Your task to perform on an android device: allow cookies in the chrome app Image 0: 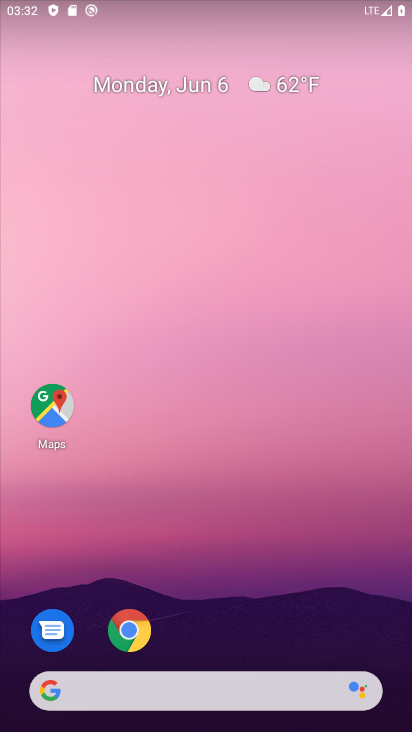
Step 0: press home button
Your task to perform on an android device: allow cookies in the chrome app Image 1: 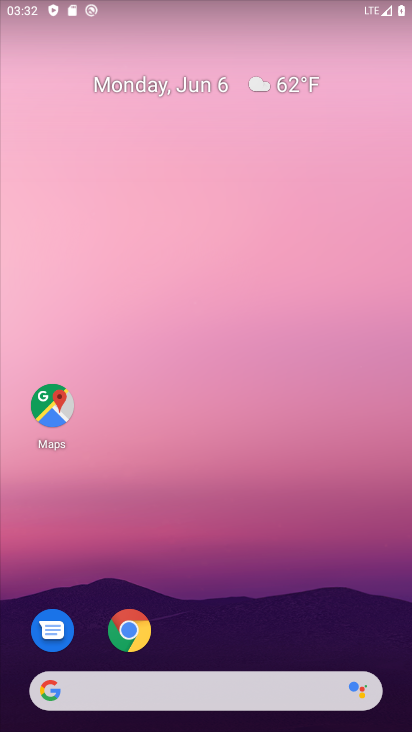
Step 1: click (110, 621)
Your task to perform on an android device: allow cookies in the chrome app Image 2: 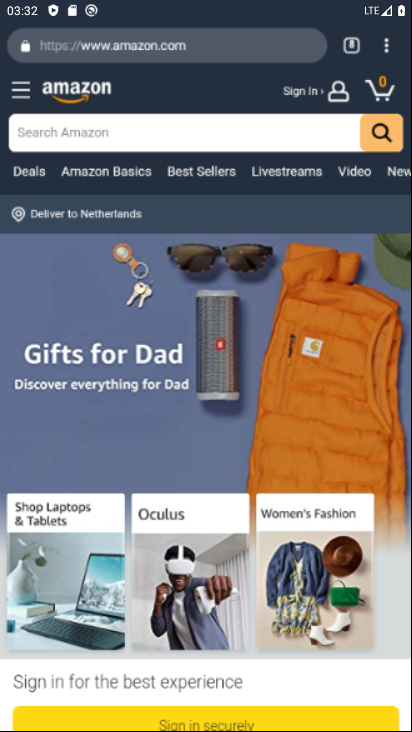
Step 2: drag from (395, 48) to (311, 412)
Your task to perform on an android device: allow cookies in the chrome app Image 3: 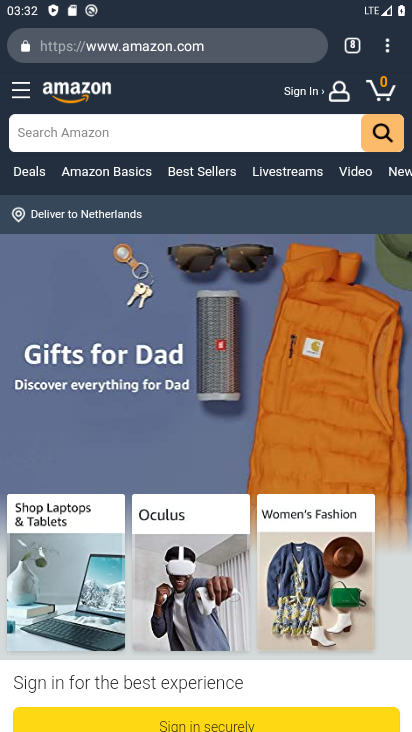
Step 3: click (401, 12)
Your task to perform on an android device: allow cookies in the chrome app Image 4: 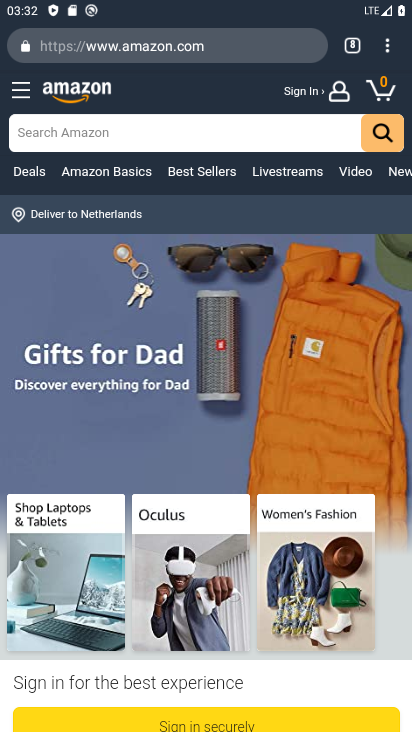
Step 4: drag from (392, 42) to (242, 539)
Your task to perform on an android device: allow cookies in the chrome app Image 5: 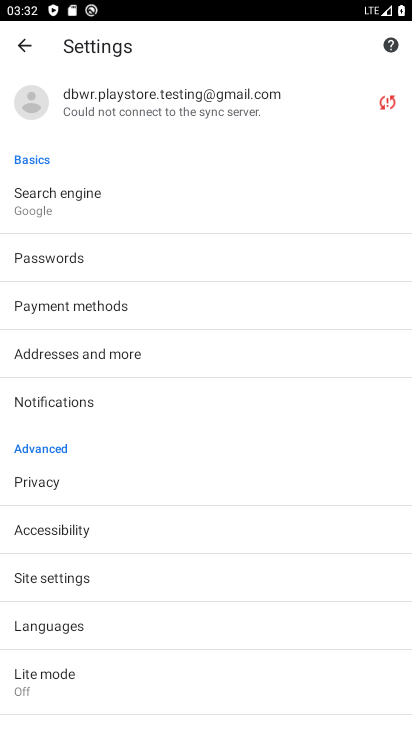
Step 5: click (38, 573)
Your task to perform on an android device: allow cookies in the chrome app Image 6: 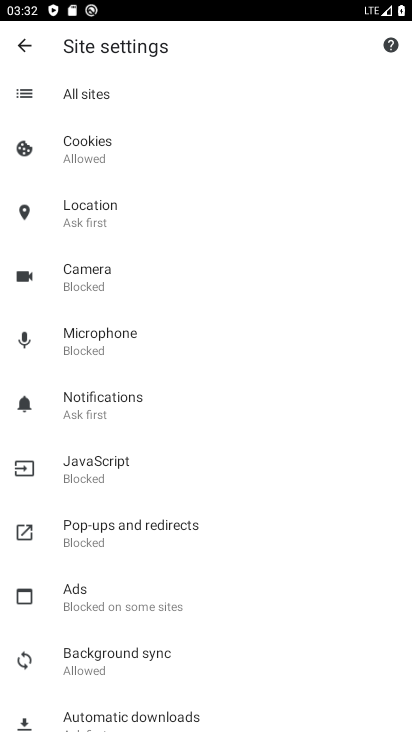
Step 6: click (107, 109)
Your task to perform on an android device: allow cookies in the chrome app Image 7: 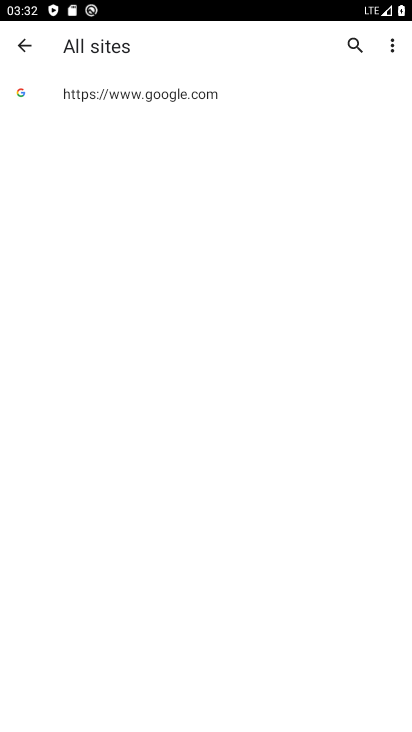
Step 7: click (23, 49)
Your task to perform on an android device: allow cookies in the chrome app Image 8: 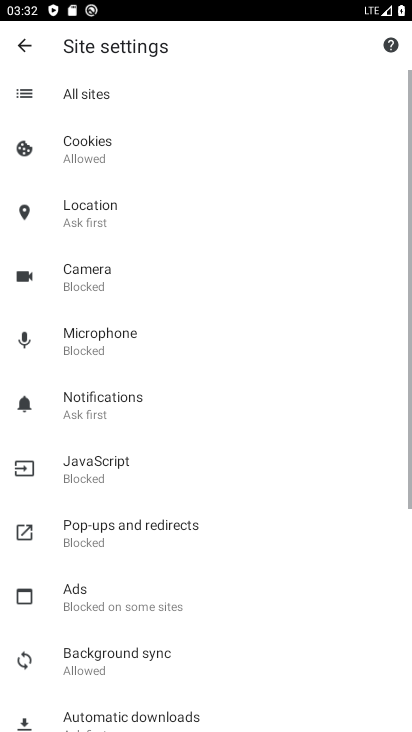
Step 8: click (61, 141)
Your task to perform on an android device: allow cookies in the chrome app Image 9: 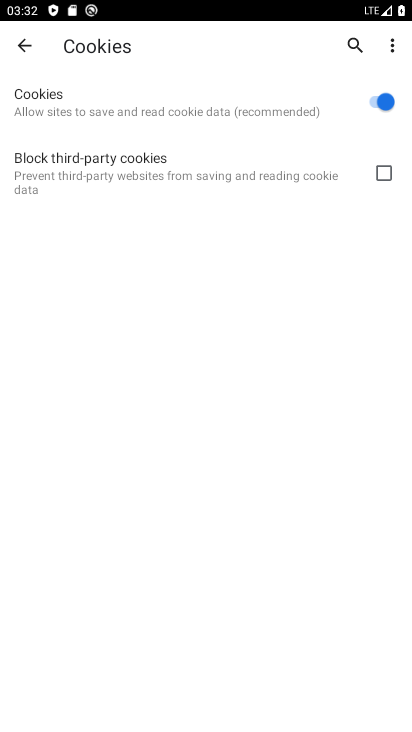
Step 9: task complete